Your task to perform on an android device: See recent photos Image 0: 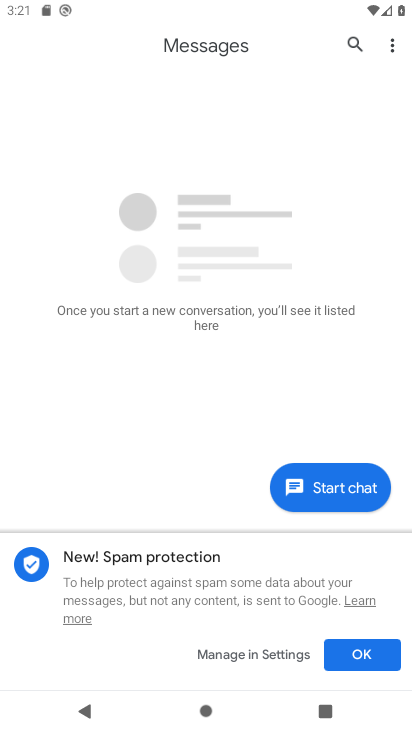
Step 0: press home button
Your task to perform on an android device: See recent photos Image 1: 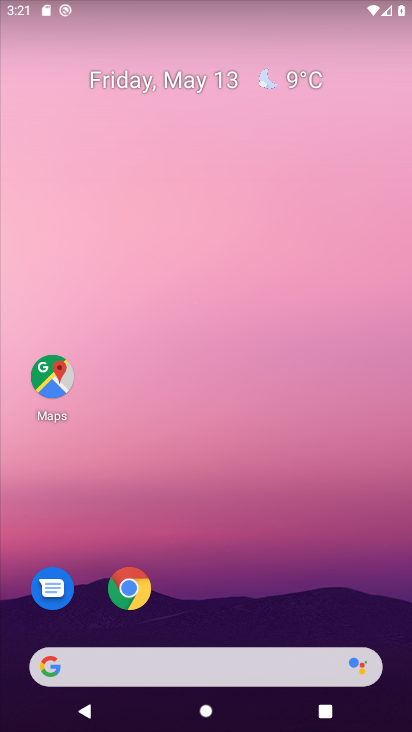
Step 1: drag from (346, 580) to (182, 37)
Your task to perform on an android device: See recent photos Image 2: 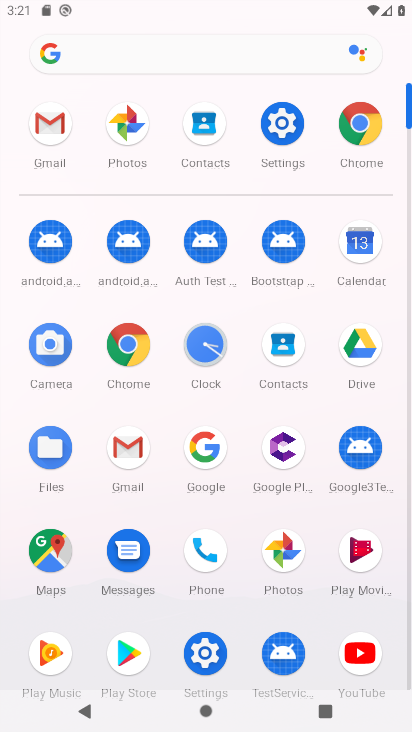
Step 2: click (282, 544)
Your task to perform on an android device: See recent photos Image 3: 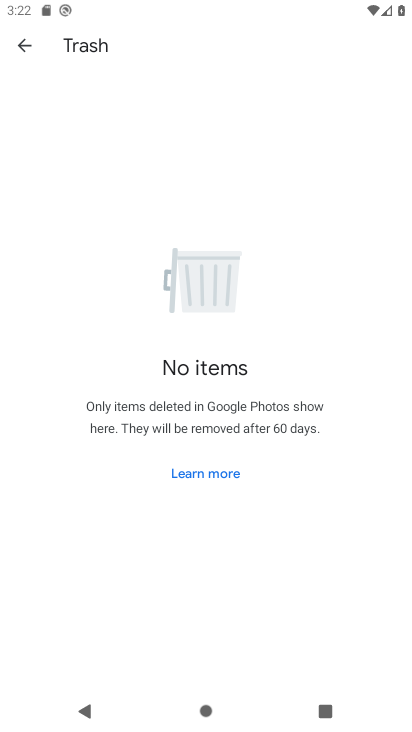
Step 3: click (12, 53)
Your task to perform on an android device: See recent photos Image 4: 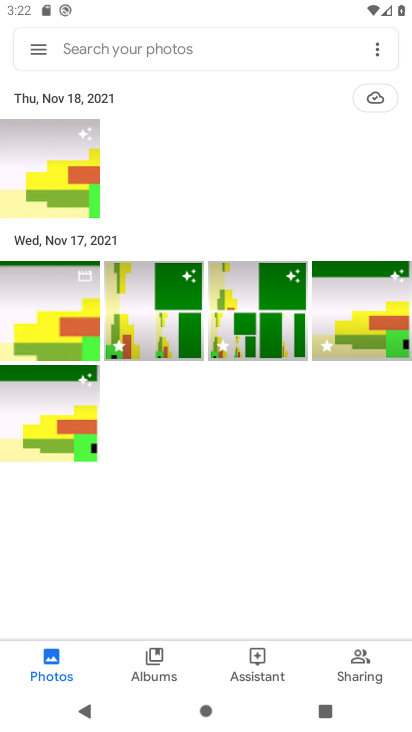
Step 4: task complete